Your task to perform on an android device: open app "Google Find My Device" Image 0: 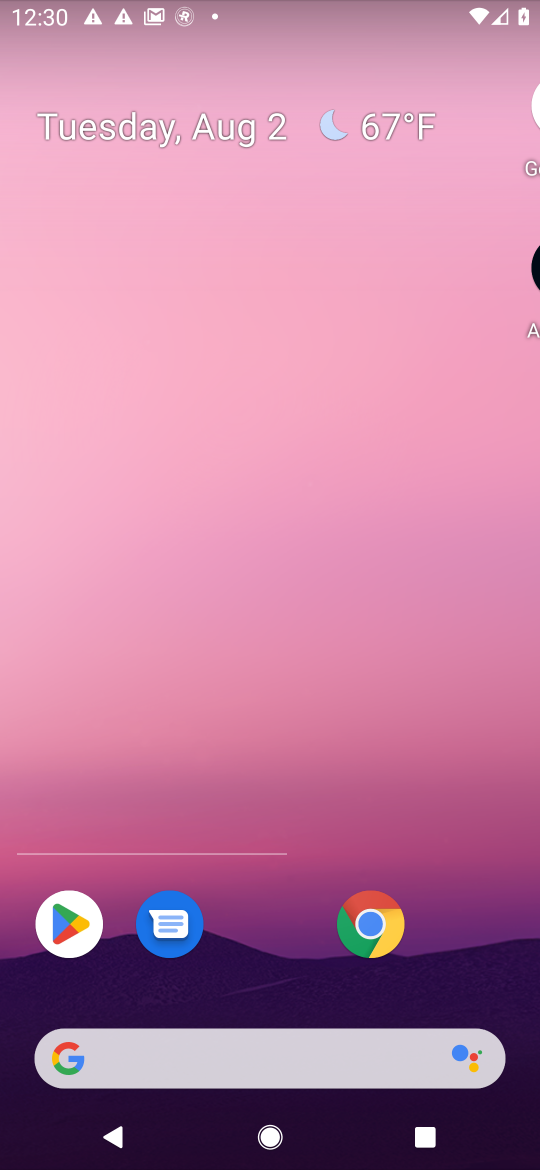
Step 0: press home button
Your task to perform on an android device: open app "Google Find My Device" Image 1: 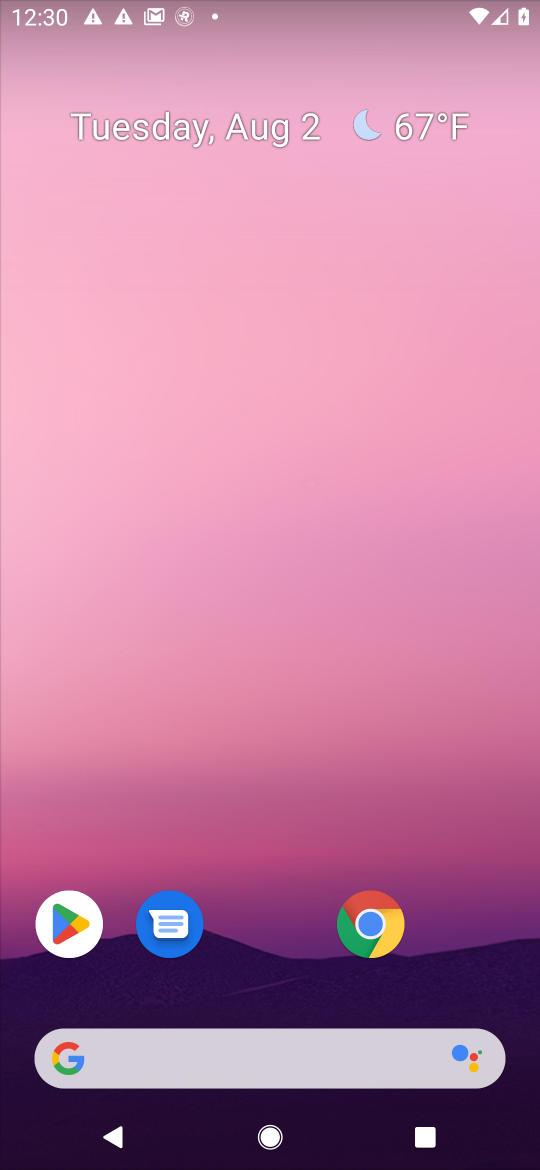
Step 1: drag from (269, 992) to (282, 89)
Your task to perform on an android device: open app "Google Find My Device" Image 2: 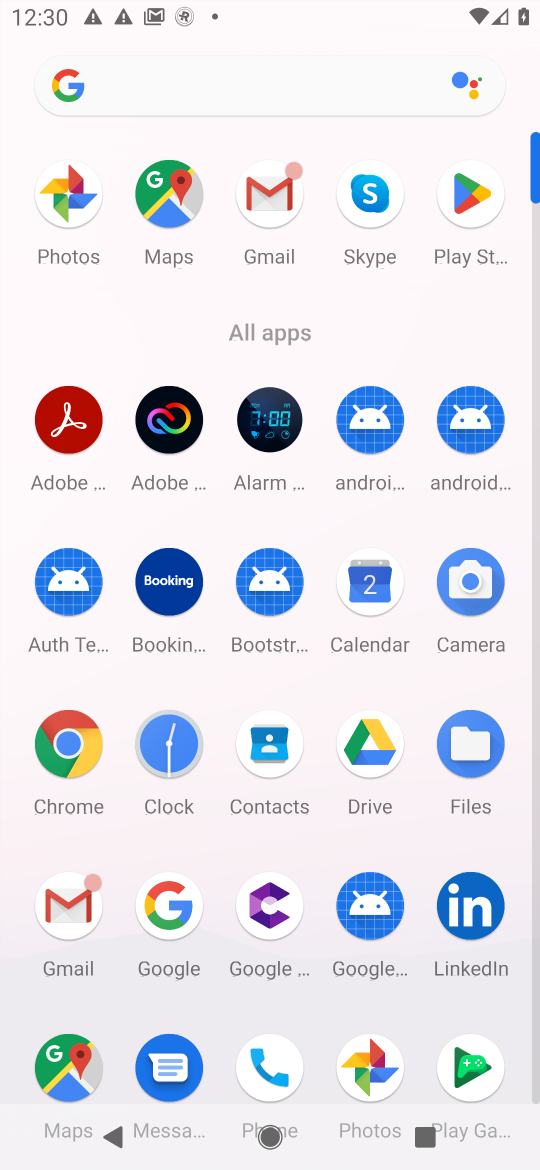
Step 2: click (465, 185)
Your task to perform on an android device: open app "Google Find My Device" Image 3: 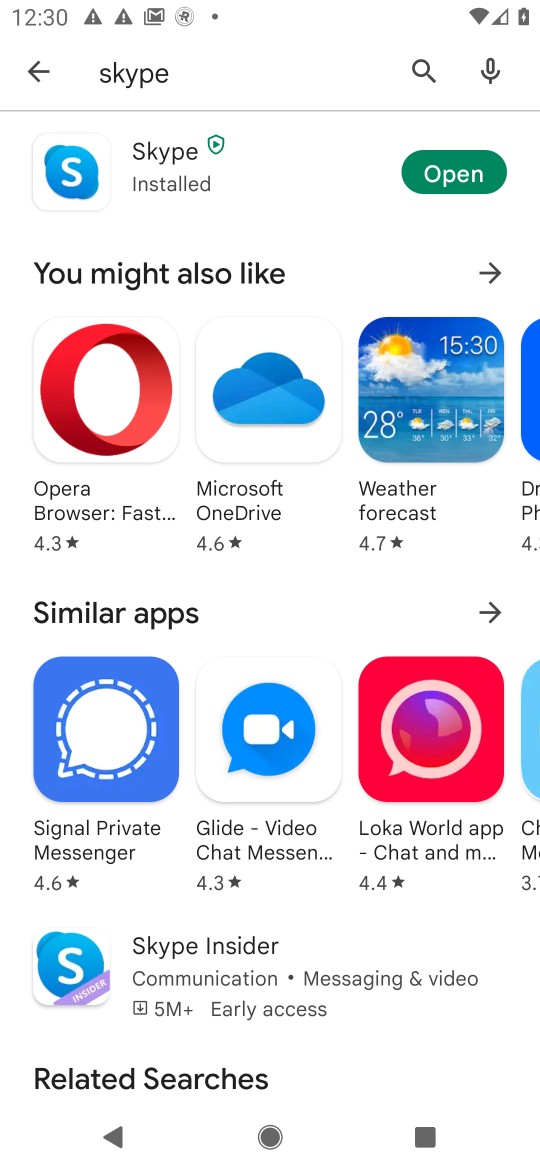
Step 3: click (413, 61)
Your task to perform on an android device: open app "Google Find My Device" Image 4: 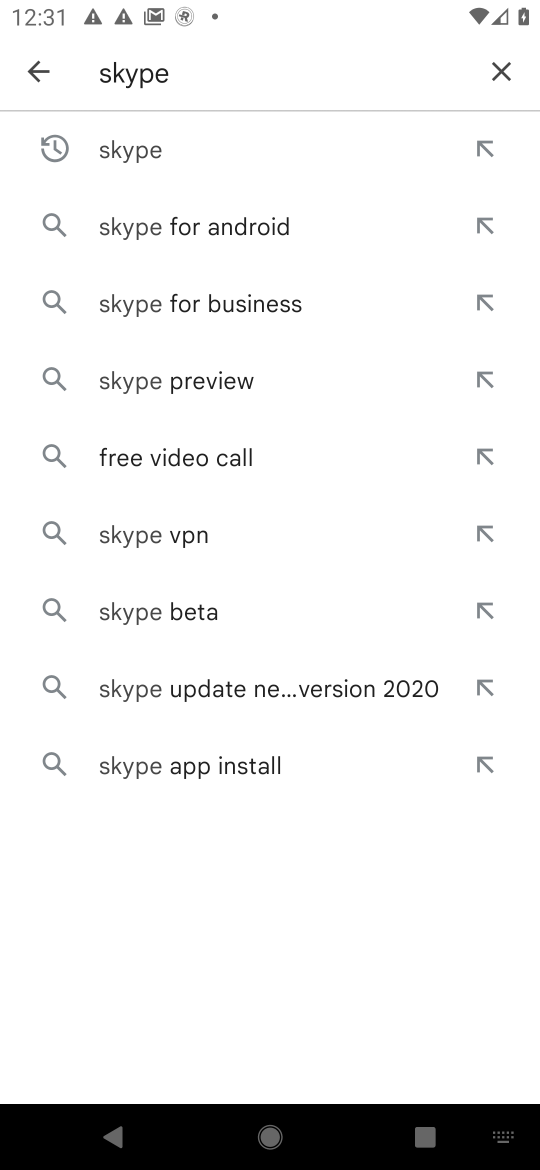
Step 4: click (500, 73)
Your task to perform on an android device: open app "Google Find My Device" Image 5: 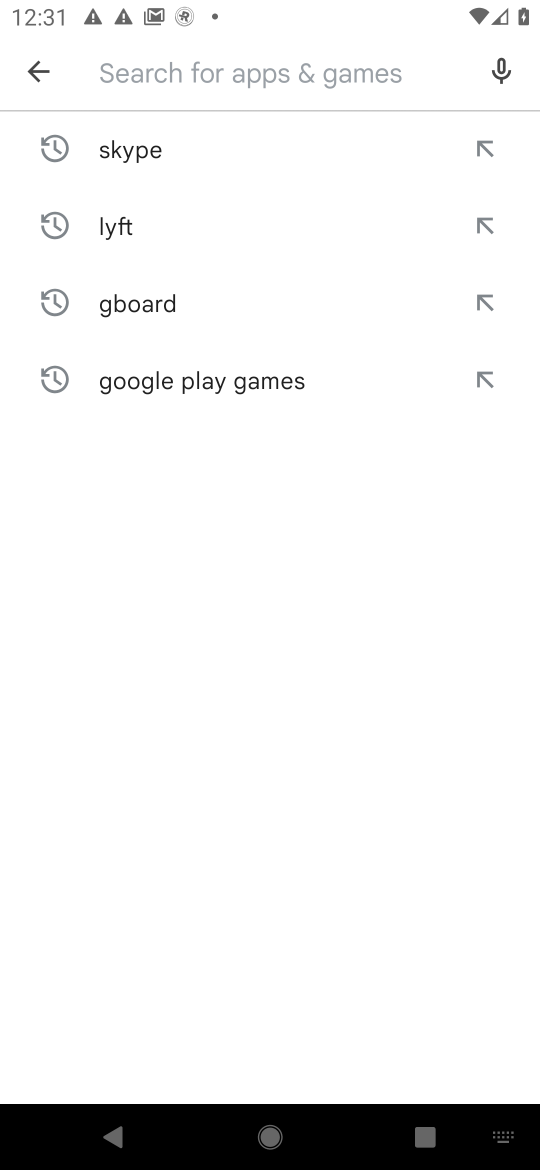
Step 5: type "Google Find My Device"
Your task to perform on an android device: open app "Google Find My Device" Image 6: 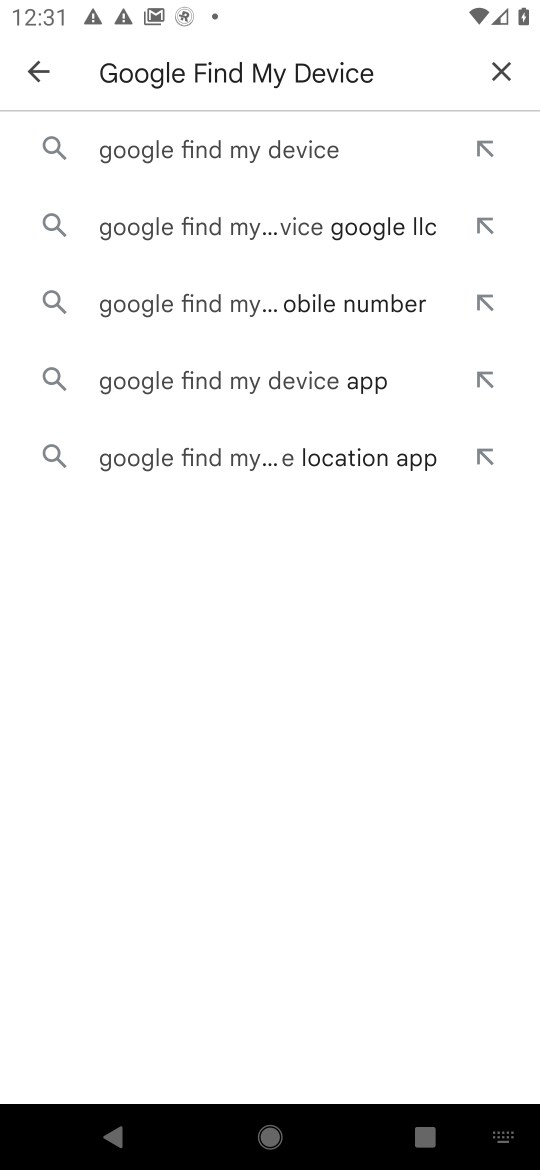
Step 6: click (219, 151)
Your task to perform on an android device: open app "Google Find My Device" Image 7: 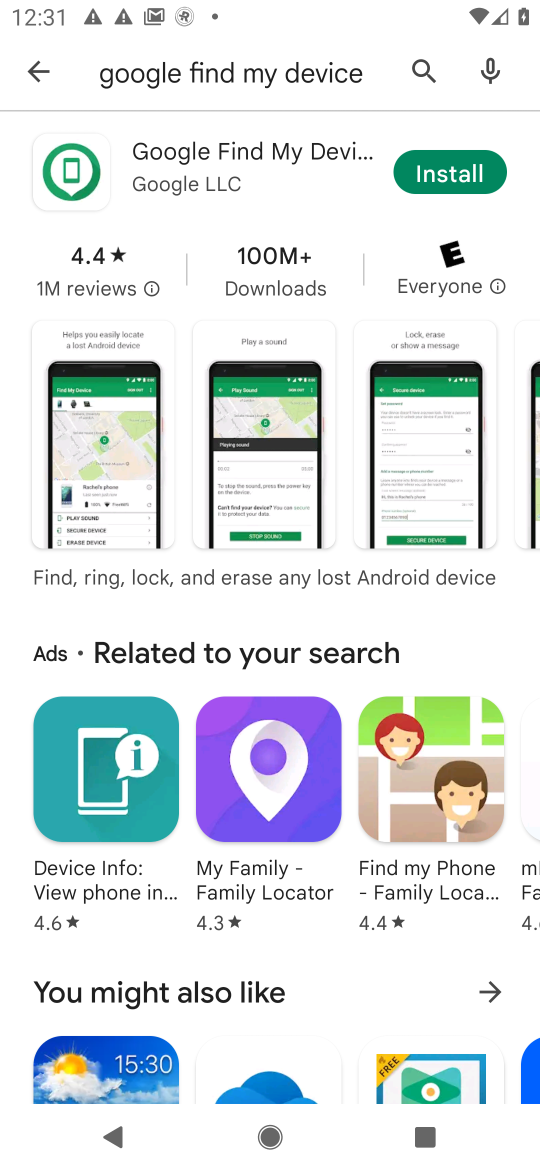
Step 7: task complete